Your task to perform on an android device: Open calendar and show me the fourth week of next month Image 0: 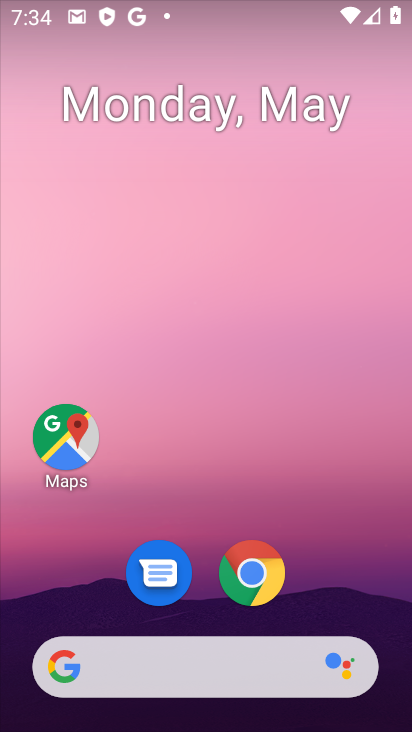
Step 0: drag from (194, 550) to (225, 91)
Your task to perform on an android device: Open calendar and show me the fourth week of next month Image 1: 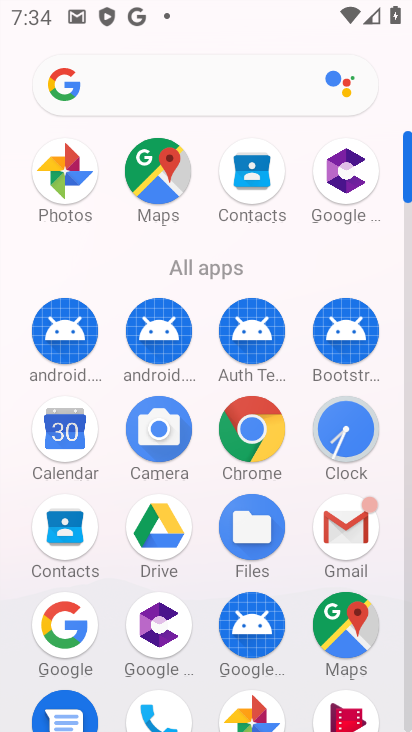
Step 1: drag from (215, 523) to (214, 330)
Your task to perform on an android device: Open calendar and show me the fourth week of next month Image 2: 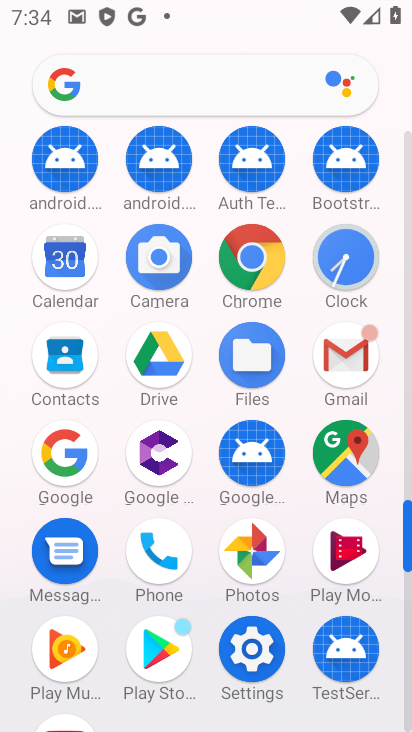
Step 2: click (77, 272)
Your task to perform on an android device: Open calendar and show me the fourth week of next month Image 3: 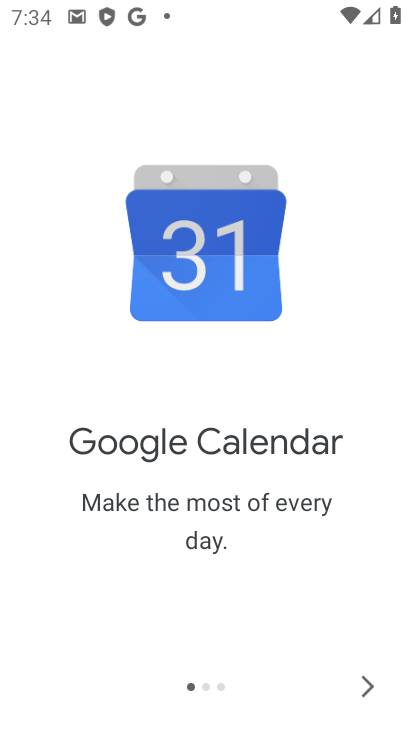
Step 3: click (367, 687)
Your task to perform on an android device: Open calendar and show me the fourth week of next month Image 4: 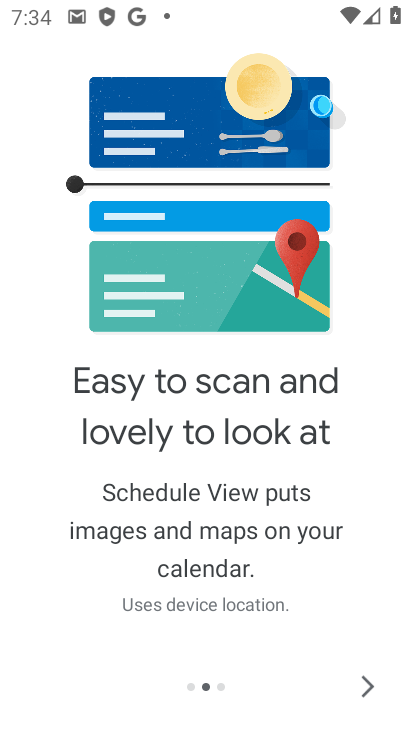
Step 4: click (367, 687)
Your task to perform on an android device: Open calendar and show me the fourth week of next month Image 5: 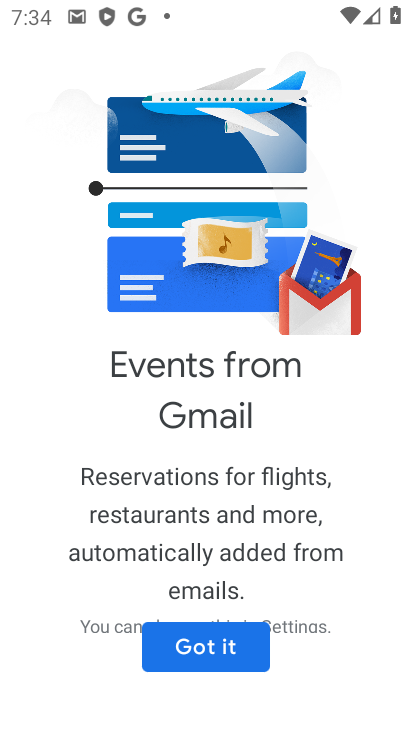
Step 5: click (248, 651)
Your task to perform on an android device: Open calendar and show me the fourth week of next month Image 6: 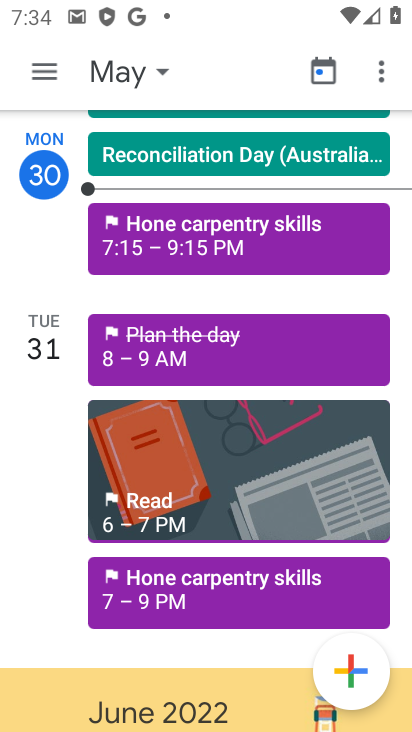
Step 6: click (157, 78)
Your task to perform on an android device: Open calendar and show me the fourth week of next month Image 7: 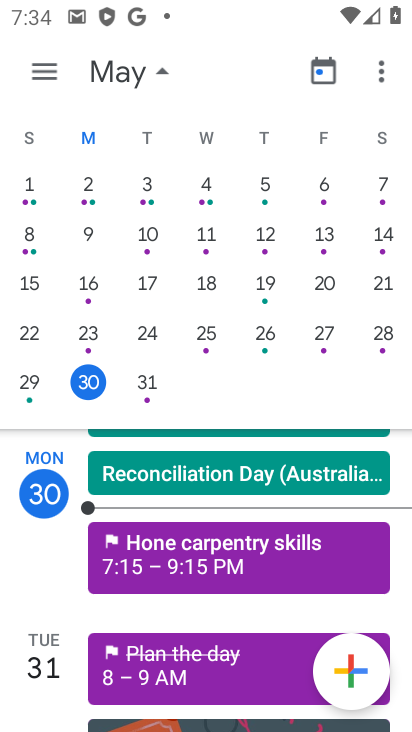
Step 7: drag from (380, 246) to (0, 312)
Your task to perform on an android device: Open calendar and show me the fourth week of next month Image 8: 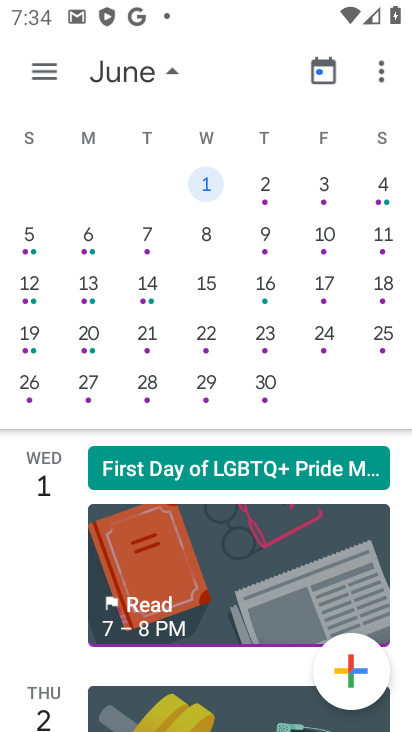
Step 8: click (29, 244)
Your task to perform on an android device: Open calendar and show me the fourth week of next month Image 9: 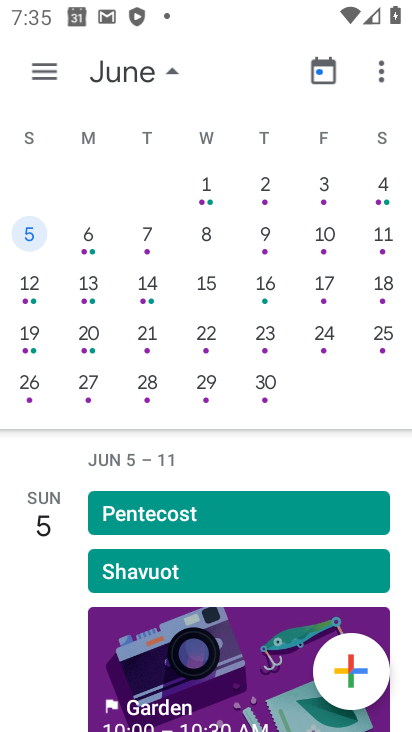
Step 9: task complete